Your task to perform on an android device: Clear the shopping cart on bestbuy. Search for "logitech g933" on bestbuy, select the first entry, add it to the cart, then select checkout. Image 0: 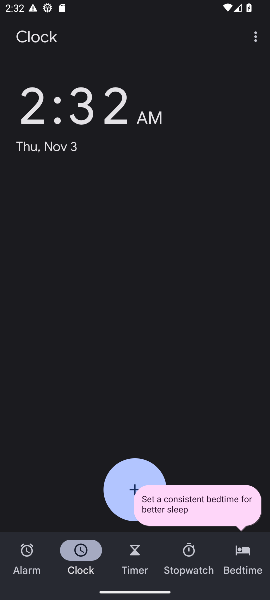
Step 0: press home button
Your task to perform on an android device: Clear the shopping cart on bestbuy. Search for "logitech g933" on bestbuy, select the first entry, add it to the cart, then select checkout. Image 1: 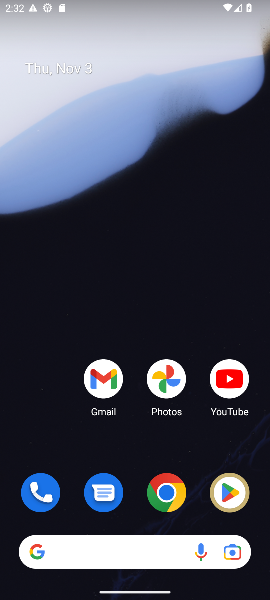
Step 1: click (164, 492)
Your task to perform on an android device: Clear the shopping cart on bestbuy. Search for "logitech g933" on bestbuy, select the first entry, add it to the cart, then select checkout. Image 2: 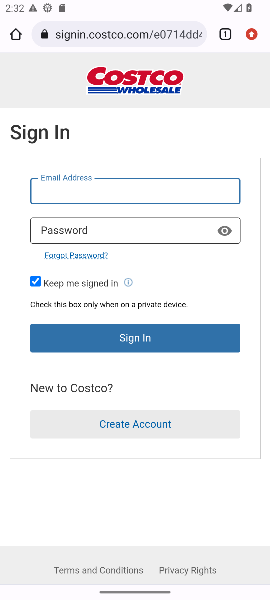
Step 2: click (141, 39)
Your task to perform on an android device: Clear the shopping cart on bestbuy. Search for "logitech g933" on bestbuy, select the first entry, add it to the cart, then select checkout. Image 3: 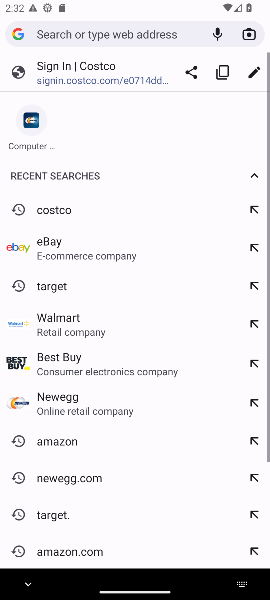
Step 3: type "bestbuy"
Your task to perform on an android device: Clear the shopping cart on bestbuy. Search for "logitech g933" on bestbuy, select the first entry, add it to the cart, then select checkout. Image 4: 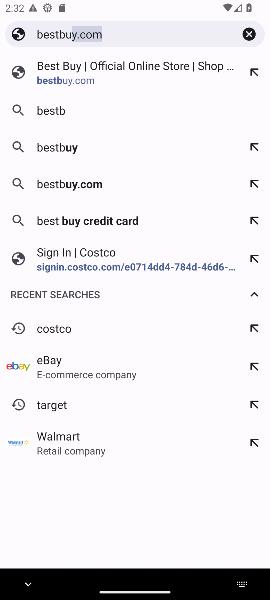
Step 4: type ""
Your task to perform on an android device: Clear the shopping cart on bestbuy. Search for "logitech g933" on bestbuy, select the first entry, add it to the cart, then select checkout. Image 5: 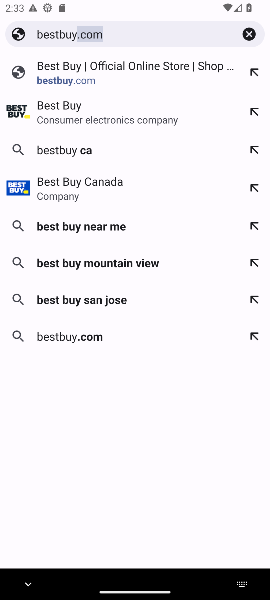
Step 5: click (109, 71)
Your task to perform on an android device: Clear the shopping cart on bestbuy. Search for "logitech g933" on bestbuy, select the first entry, add it to the cart, then select checkout. Image 6: 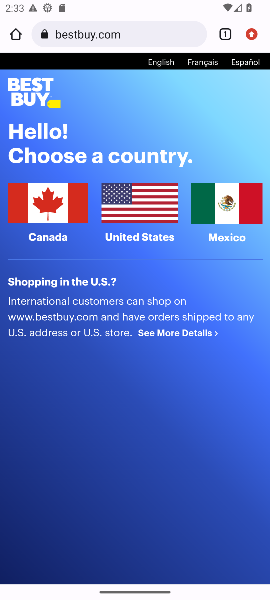
Step 6: click (124, 209)
Your task to perform on an android device: Clear the shopping cart on bestbuy. Search for "logitech g933" on bestbuy, select the first entry, add it to the cart, then select checkout. Image 7: 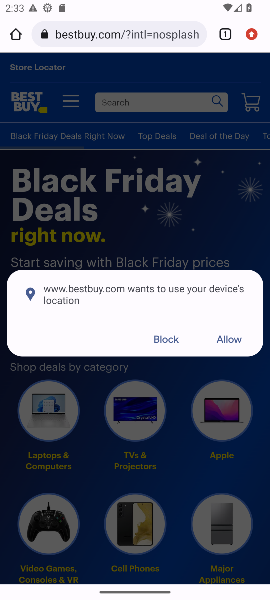
Step 7: click (165, 342)
Your task to perform on an android device: Clear the shopping cart on bestbuy. Search for "logitech g933" on bestbuy, select the first entry, add it to the cart, then select checkout. Image 8: 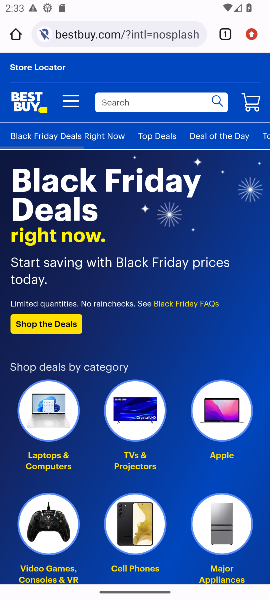
Step 8: click (254, 107)
Your task to perform on an android device: Clear the shopping cart on bestbuy. Search for "logitech g933" on bestbuy, select the first entry, add it to the cart, then select checkout. Image 9: 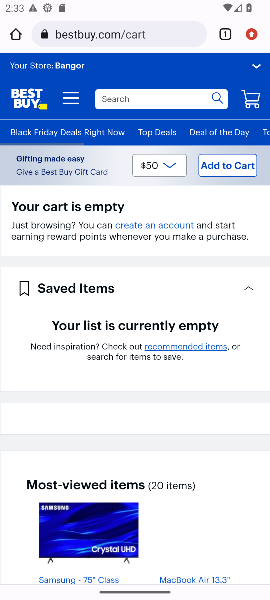
Step 9: click (124, 89)
Your task to perform on an android device: Clear the shopping cart on bestbuy. Search for "logitech g933" on bestbuy, select the first entry, add it to the cart, then select checkout. Image 10: 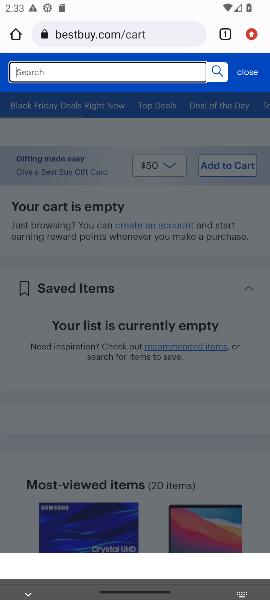
Step 10: click (121, 93)
Your task to perform on an android device: Clear the shopping cart on bestbuy. Search for "logitech g933" on bestbuy, select the first entry, add it to the cart, then select checkout. Image 11: 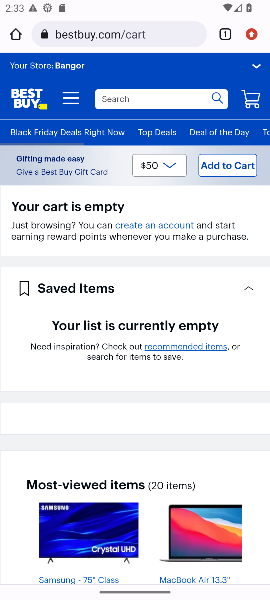
Step 11: click (142, 97)
Your task to perform on an android device: Clear the shopping cart on bestbuy. Search for "logitech g933" on bestbuy, select the first entry, add it to the cart, then select checkout. Image 12: 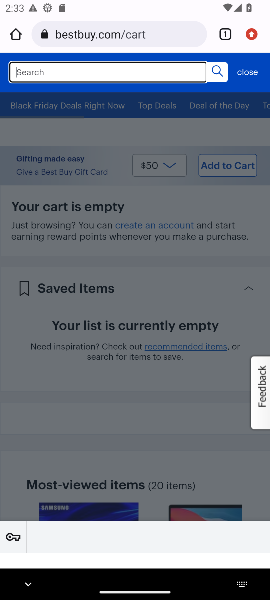
Step 12: type "logitech g933"
Your task to perform on an android device: Clear the shopping cart on bestbuy. Search for "logitech g933" on bestbuy, select the first entry, add it to the cart, then select checkout. Image 13: 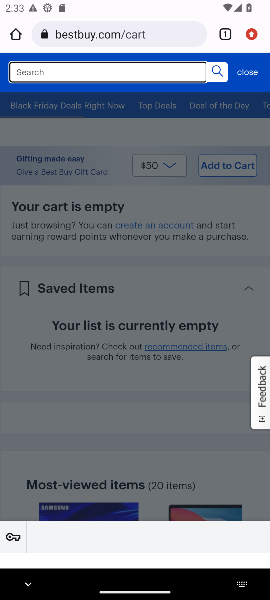
Step 13: type ""
Your task to perform on an android device: Clear the shopping cart on bestbuy. Search for "logitech g933" on bestbuy, select the first entry, add it to the cart, then select checkout. Image 14: 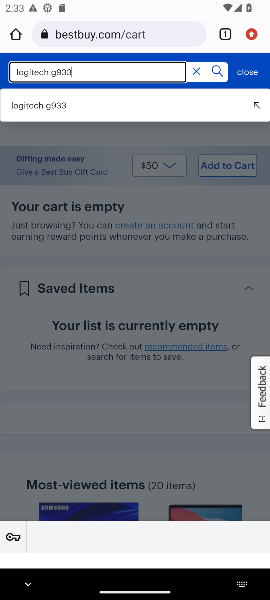
Step 14: click (54, 103)
Your task to perform on an android device: Clear the shopping cart on bestbuy. Search for "logitech g933" on bestbuy, select the first entry, add it to the cart, then select checkout. Image 15: 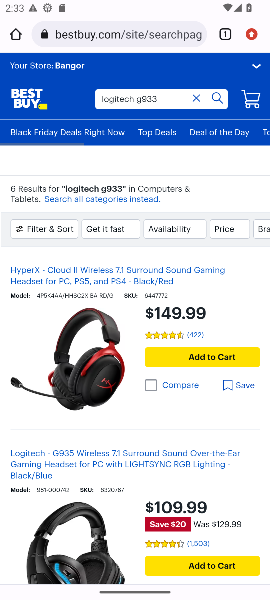
Step 15: click (186, 488)
Your task to perform on an android device: Clear the shopping cart on bestbuy. Search for "logitech g933" on bestbuy, select the first entry, add it to the cart, then select checkout. Image 16: 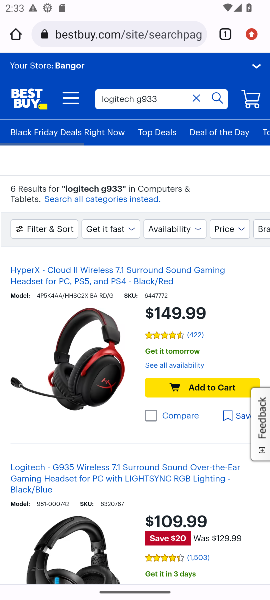
Step 16: drag from (186, 488) to (195, 196)
Your task to perform on an android device: Clear the shopping cart on bestbuy. Search for "logitech g933" on bestbuy, select the first entry, add it to the cart, then select checkout. Image 17: 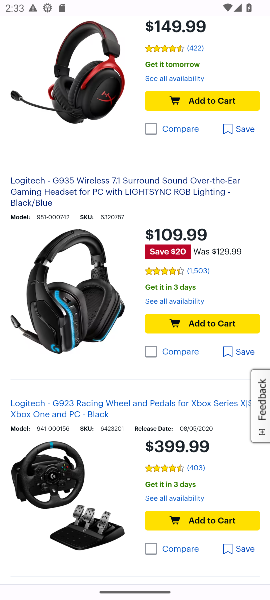
Step 17: drag from (197, 424) to (204, 180)
Your task to perform on an android device: Clear the shopping cart on bestbuy. Search for "logitech g933" on bestbuy, select the first entry, add it to the cart, then select checkout. Image 18: 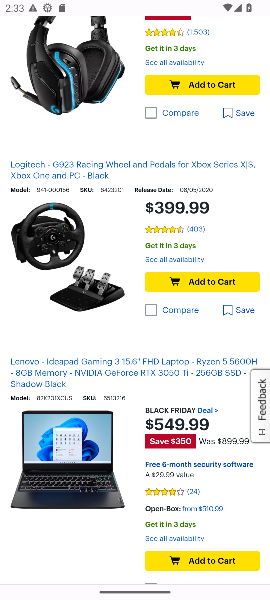
Step 18: drag from (152, 423) to (174, 139)
Your task to perform on an android device: Clear the shopping cart on bestbuy. Search for "logitech g933" on bestbuy, select the first entry, add it to the cart, then select checkout. Image 19: 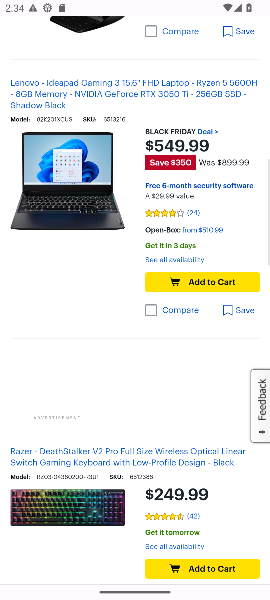
Step 19: drag from (141, 460) to (168, 162)
Your task to perform on an android device: Clear the shopping cart on bestbuy. Search for "logitech g933" on bestbuy, select the first entry, add it to the cart, then select checkout. Image 20: 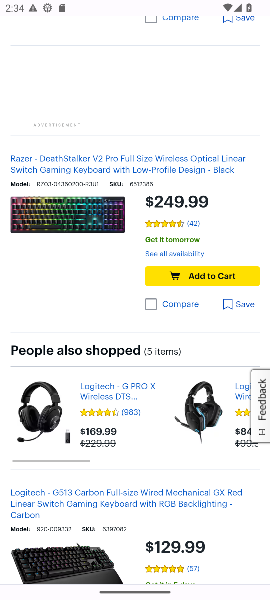
Step 20: drag from (233, 405) to (74, 397)
Your task to perform on an android device: Clear the shopping cart on bestbuy. Search for "logitech g933" on bestbuy, select the first entry, add it to the cart, then select checkout. Image 21: 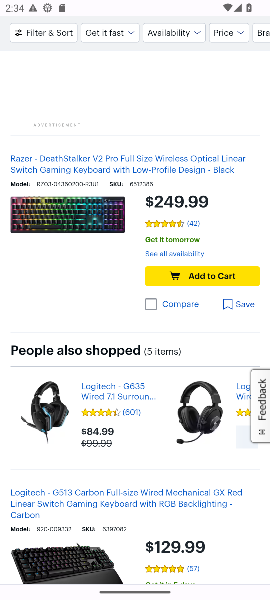
Step 21: drag from (218, 415) to (94, 407)
Your task to perform on an android device: Clear the shopping cart on bestbuy. Search for "logitech g933" on bestbuy, select the first entry, add it to the cart, then select checkout. Image 22: 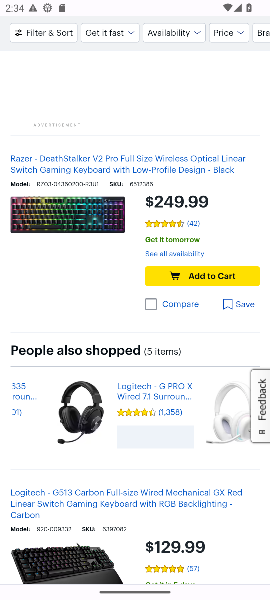
Step 22: drag from (165, 506) to (186, 154)
Your task to perform on an android device: Clear the shopping cart on bestbuy. Search for "logitech g933" on bestbuy, select the first entry, add it to the cart, then select checkout. Image 23: 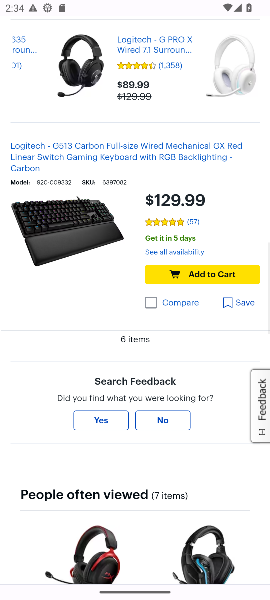
Step 23: drag from (199, 455) to (205, 193)
Your task to perform on an android device: Clear the shopping cart on bestbuy. Search for "logitech g933" on bestbuy, select the first entry, add it to the cart, then select checkout. Image 24: 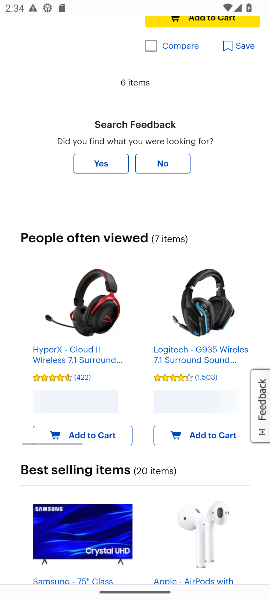
Step 24: drag from (191, 434) to (194, 223)
Your task to perform on an android device: Clear the shopping cart on bestbuy. Search for "logitech g933" on bestbuy, select the first entry, add it to the cart, then select checkout. Image 25: 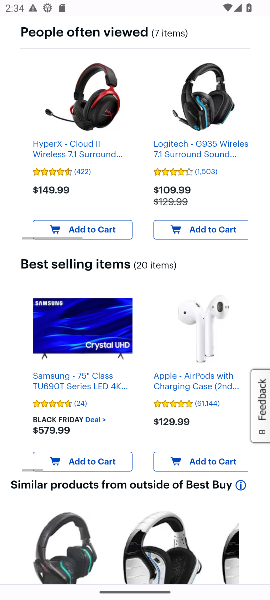
Step 25: drag from (185, 443) to (216, 198)
Your task to perform on an android device: Clear the shopping cart on bestbuy. Search for "logitech g933" on bestbuy, select the first entry, add it to the cart, then select checkout. Image 26: 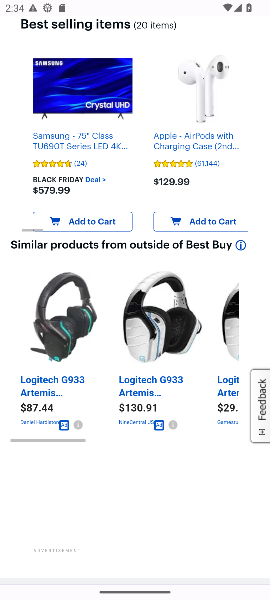
Step 26: click (47, 385)
Your task to perform on an android device: Clear the shopping cart on bestbuy. Search for "logitech g933" on bestbuy, select the first entry, add it to the cart, then select checkout. Image 27: 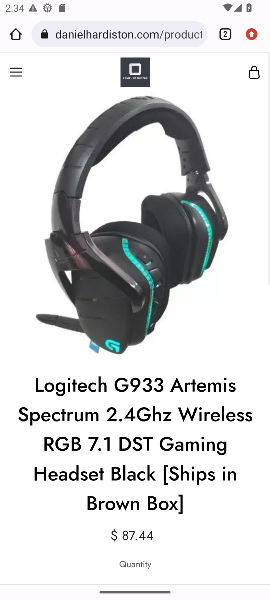
Step 27: drag from (159, 458) to (175, 193)
Your task to perform on an android device: Clear the shopping cart on bestbuy. Search for "logitech g933" on bestbuy, select the first entry, add it to the cart, then select checkout. Image 28: 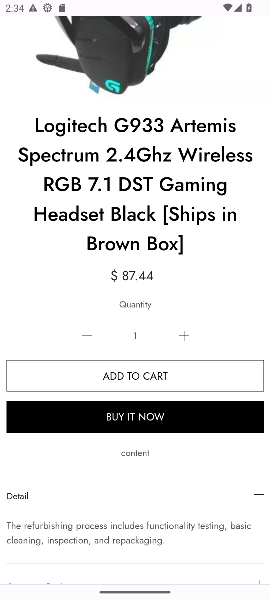
Step 28: click (138, 382)
Your task to perform on an android device: Clear the shopping cart on bestbuy. Search for "logitech g933" on bestbuy, select the first entry, add it to the cart, then select checkout. Image 29: 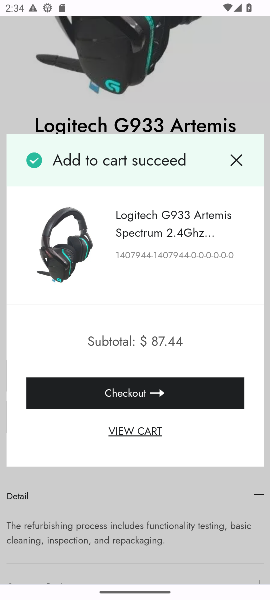
Step 29: click (151, 398)
Your task to perform on an android device: Clear the shopping cart on bestbuy. Search for "logitech g933" on bestbuy, select the first entry, add it to the cart, then select checkout. Image 30: 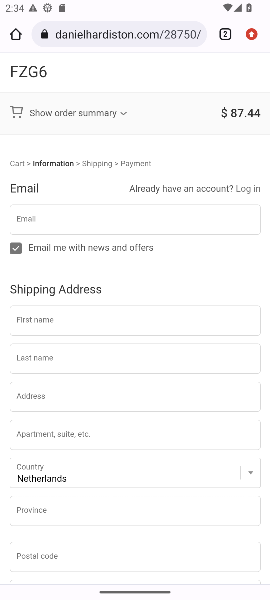
Step 30: task complete